Your task to perform on an android device: What's the news in Sri Lanka? Image 0: 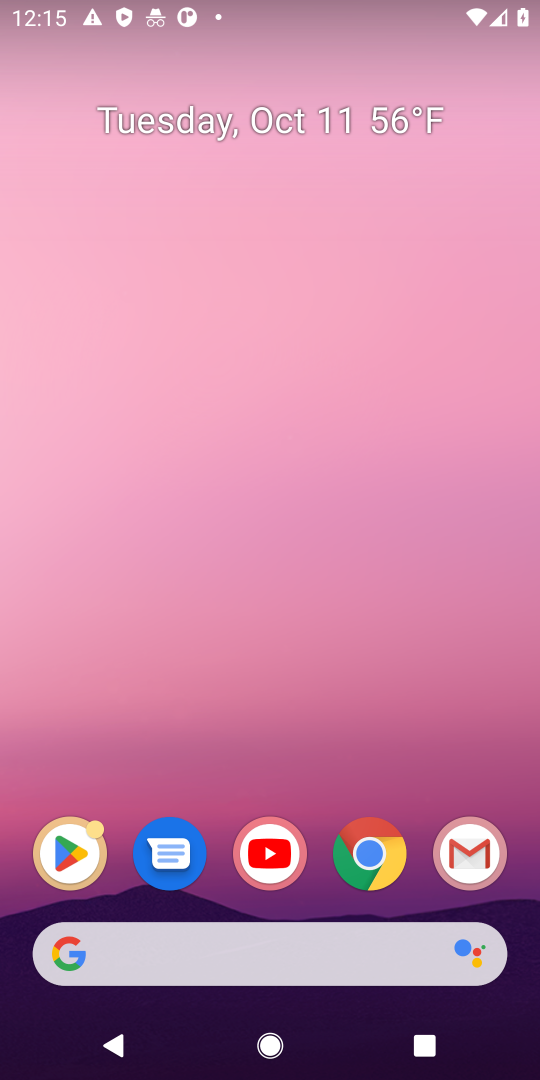
Step 0: drag from (301, 819) to (416, 41)
Your task to perform on an android device: What's the news in Sri Lanka? Image 1: 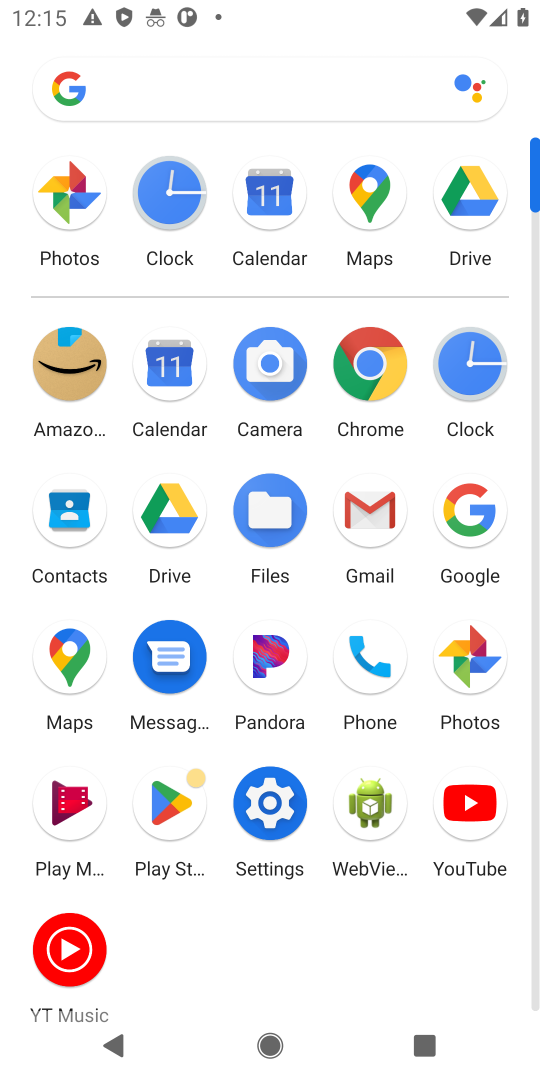
Step 1: click (364, 358)
Your task to perform on an android device: What's the news in Sri Lanka? Image 2: 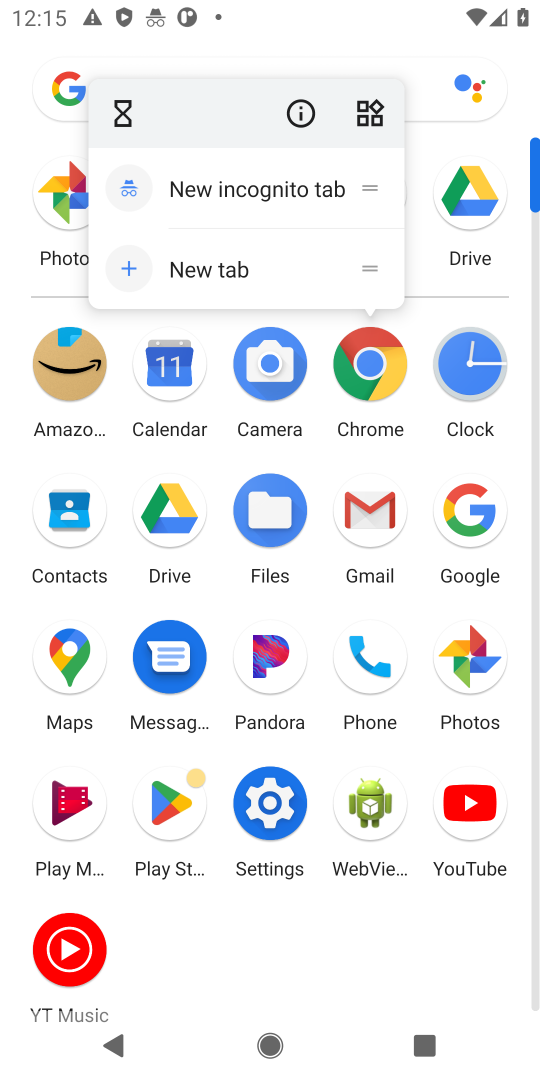
Step 2: click (363, 373)
Your task to perform on an android device: What's the news in Sri Lanka? Image 3: 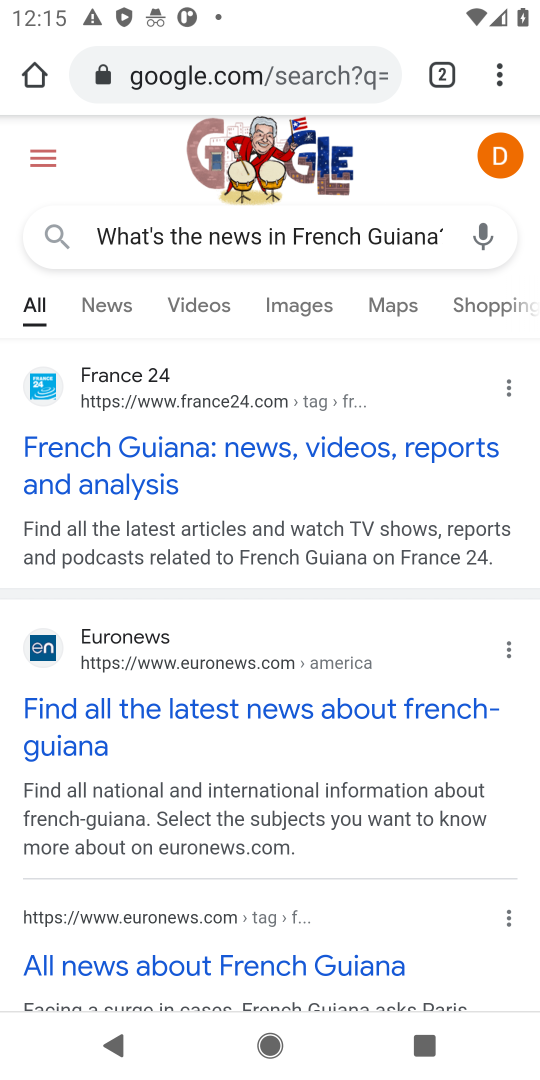
Step 3: click (175, 74)
Your task to perform on an android device: What's the news in Sri Lanka? Image 4: 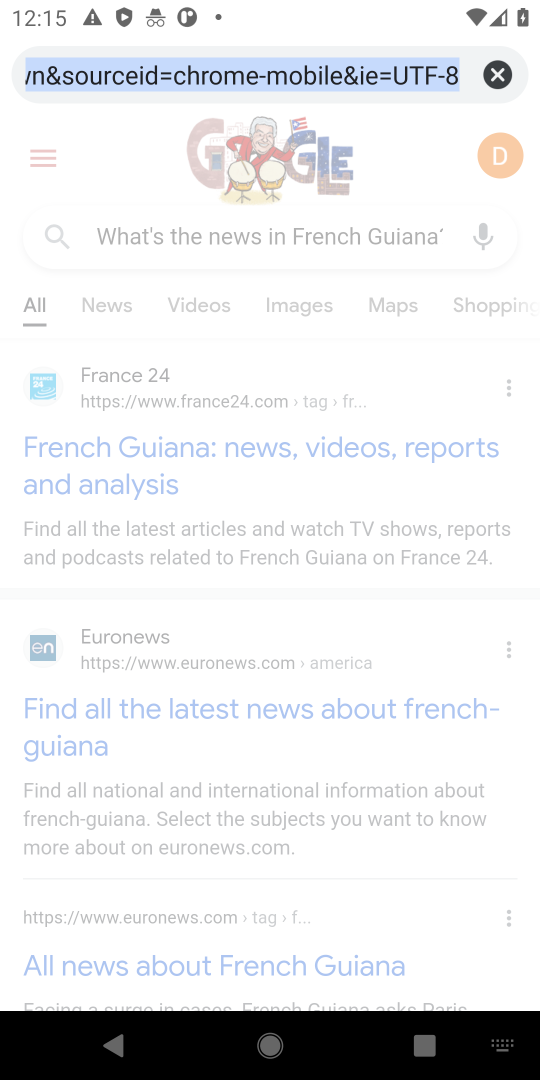
Step 4: click (500, 67)
Your task to perform on an android device: What's the news in Sri Lanka? Image 5: 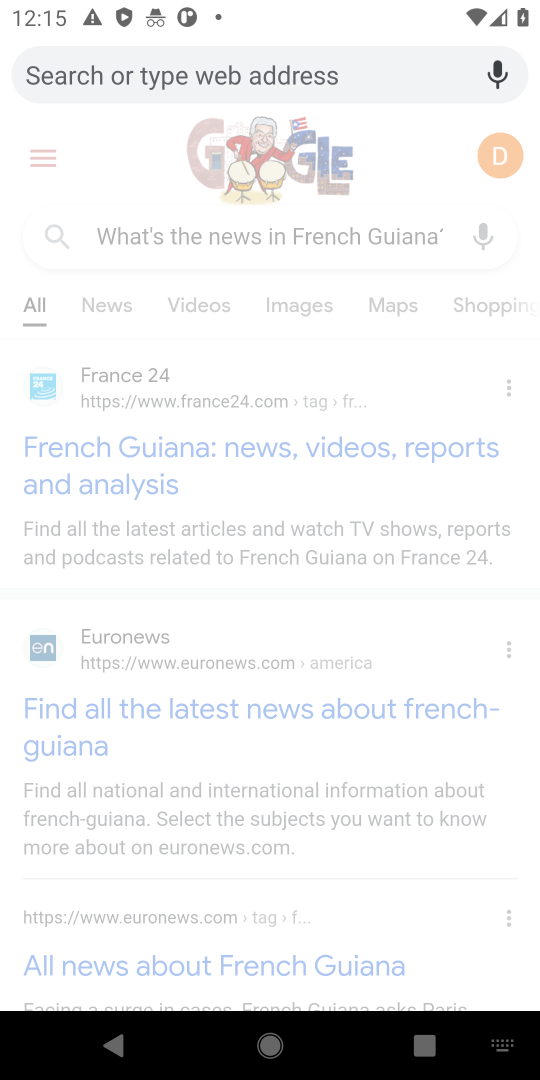
Step 5: type "What's the news in Sri Lanka?"
Your task to perform on an android device: What's the news in Sri Lanka? Image 6: 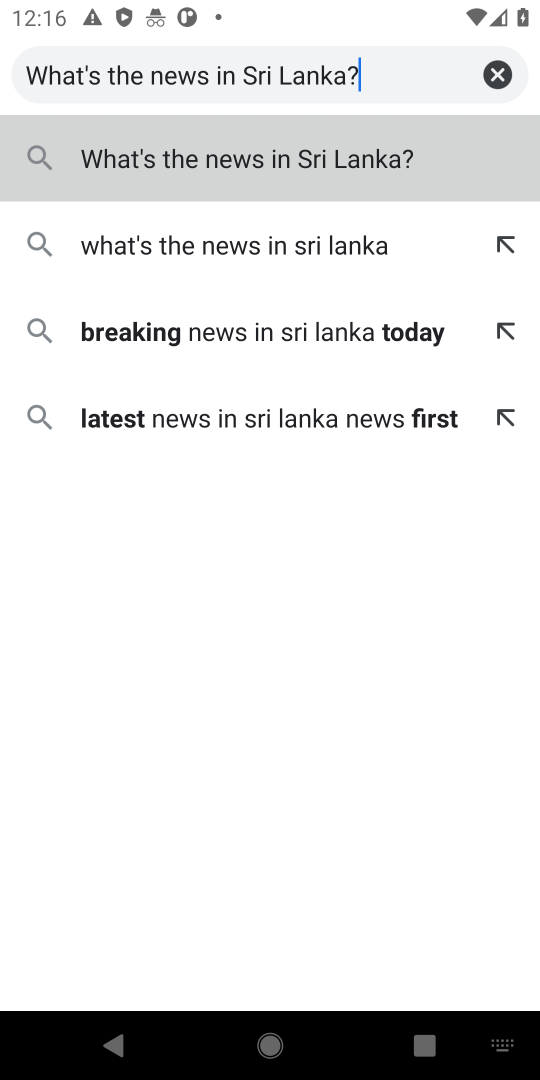
Step 6: click (311, 167)
Your task to perform on an android device: What's the news in Sri Lanka? Image 7: 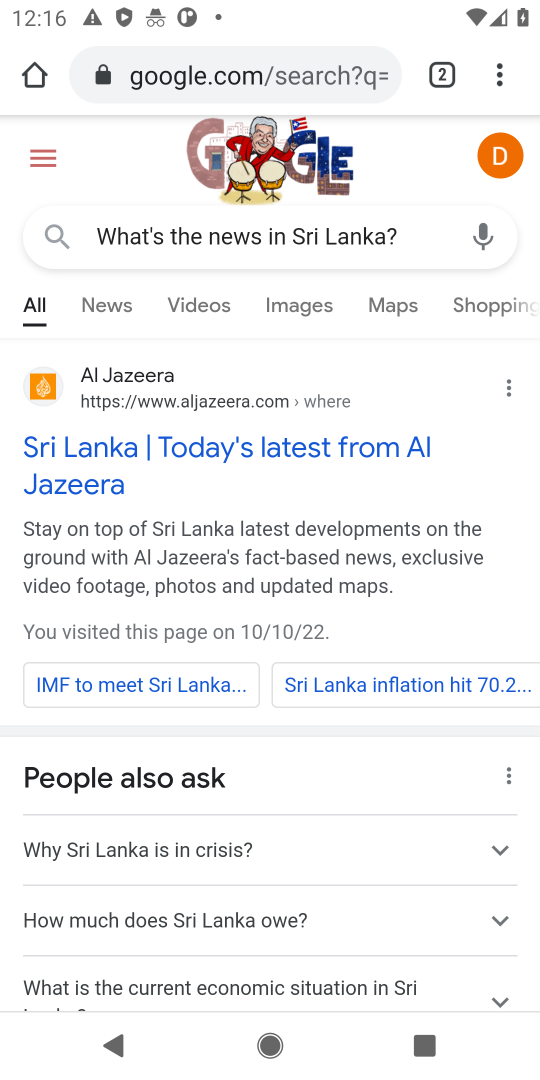
Step 7: click (218, 448)
Your task to perform on an android device: What's the news in Sri Lanka? Image 8: 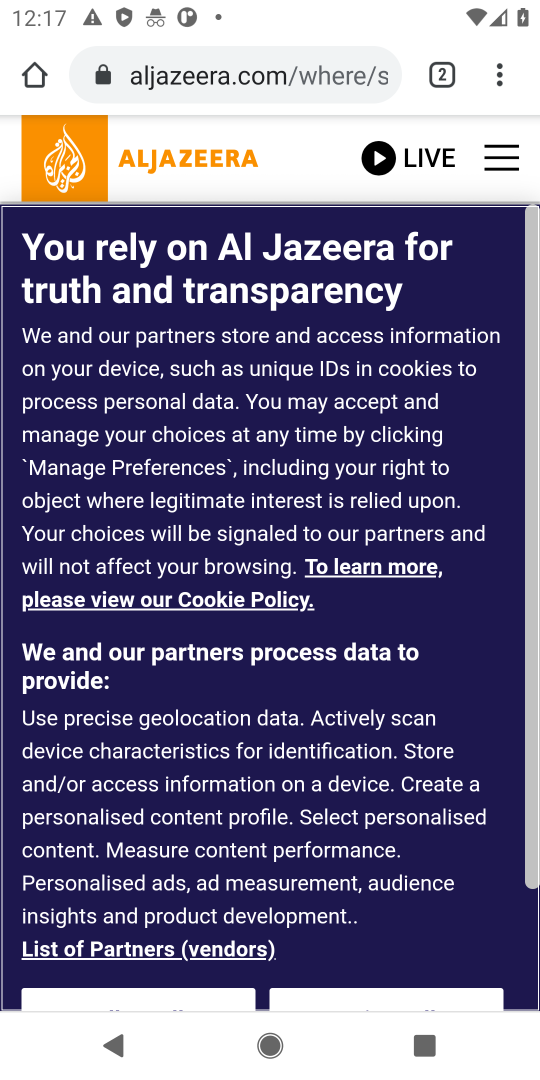
Step 8: task complete